Your task to perform on an android device: toggle javascript in the chrome app Image 0: 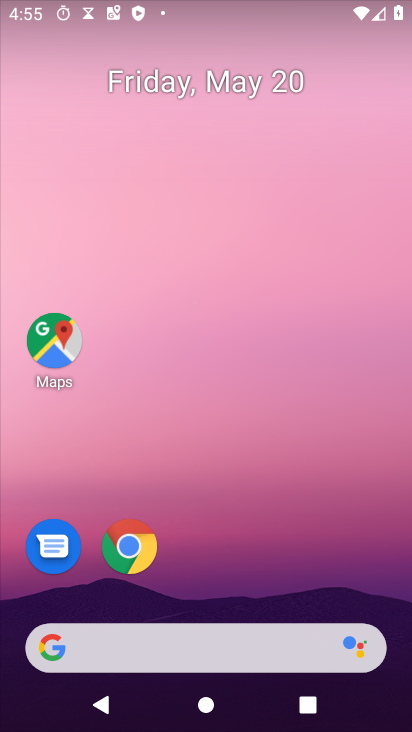
Step 0: click (130, 544)
Your task to perform on an android device: toggle javascript in the chrome app Image 1: 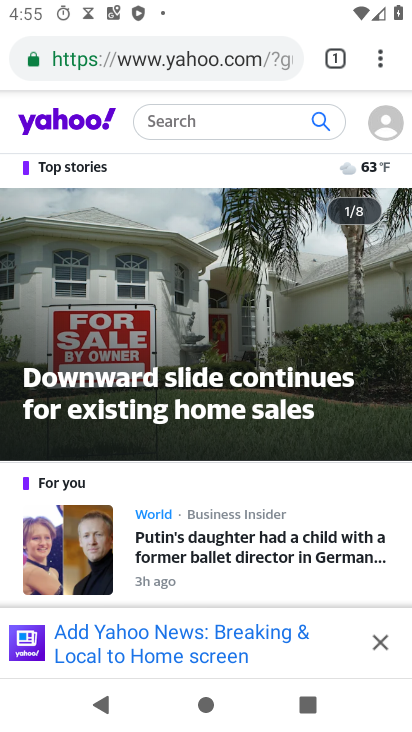
Step 1: click (380, 61)
Your task to perform on an android device: toggle javascript in the chrome app Image 2: 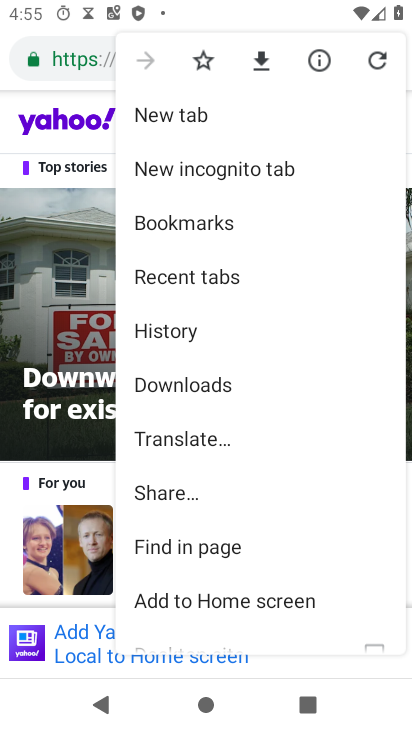
Step 2: drag from (224, 474) to (237, 392)
Your task to perform on an android device: toggle javascript in the chrome app Image 3: 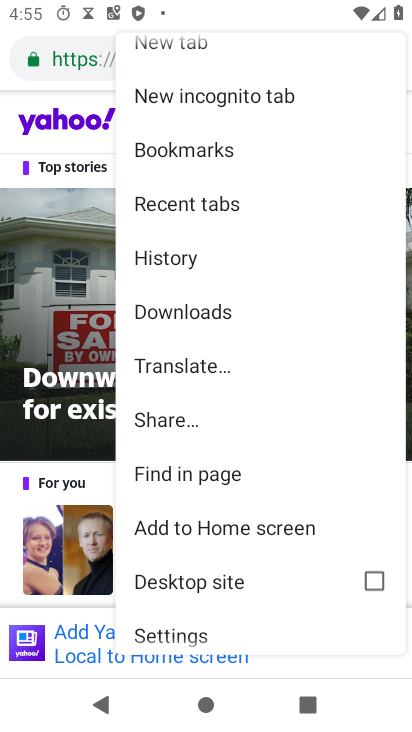
Step 3: drag from (191, 549) to (234, 464)
Your task to perform on an android device: toggle javascript in the chrome app Image 4: 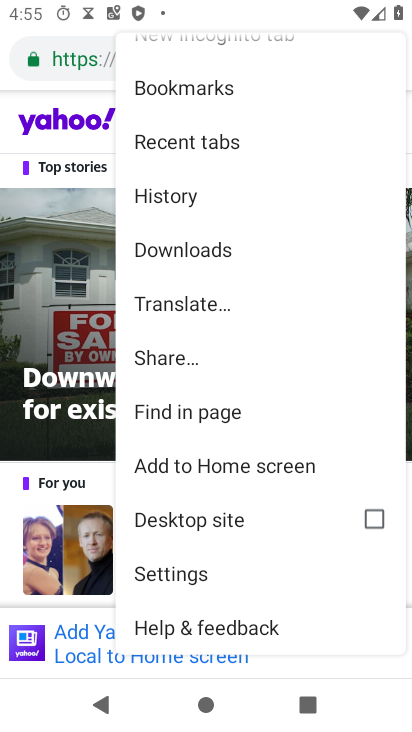
Step 4: click (163, 573)
Your task to perform on an android device: toggle javascript in the chrome app Image 5: 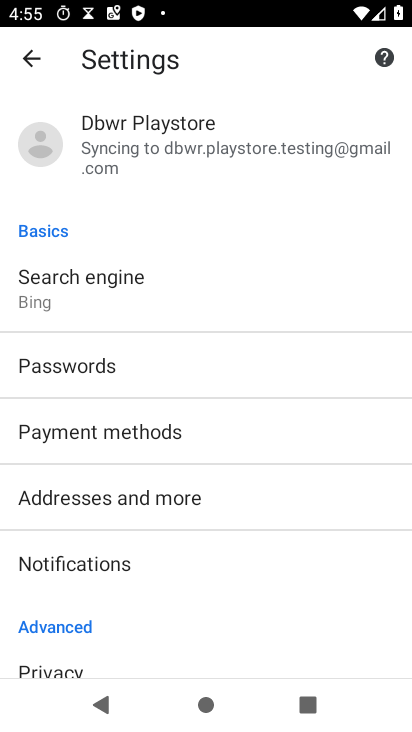
Step 5: drag from (119, 597) to (197, 463)
Your task to perform on an android device: toggle javascript in the chrome app Image 6: 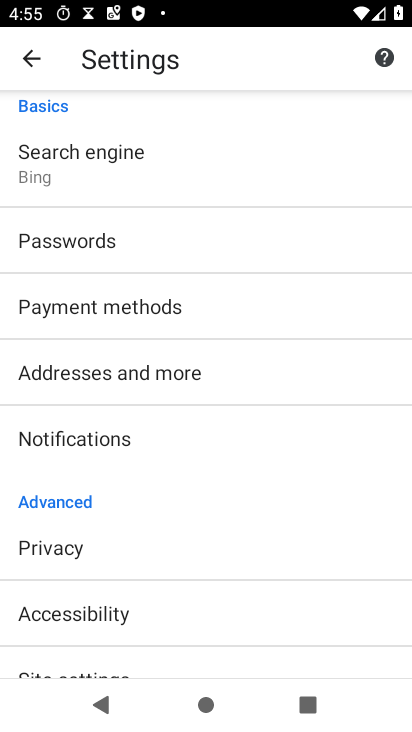
Step 6: drag from (121, 590) to (206, 470)
Your task to perform on an android device: toggle javascript in the chrome app Image 7: 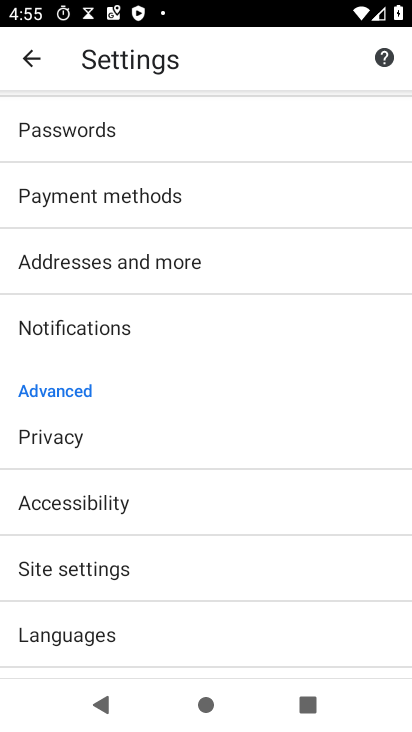
Step 7: click (102, 567)
Your task to perform on an android device: toggle javascript in the chrome app Image 8: 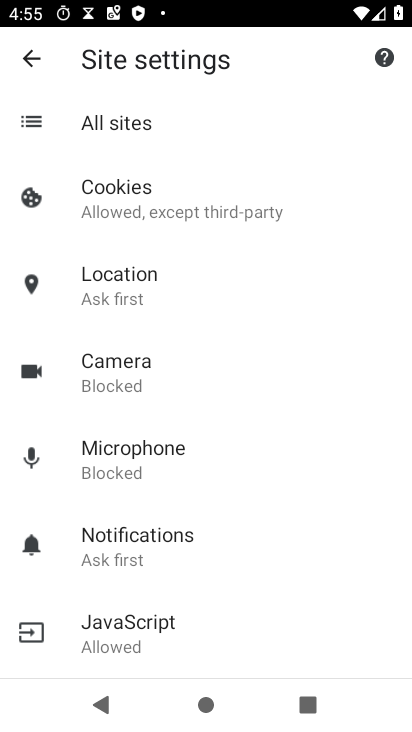
Step 8: drag from (199, 550) to (231, 477)
Your task to perform on an android device: toggle javascript in the chrome app Image 9: 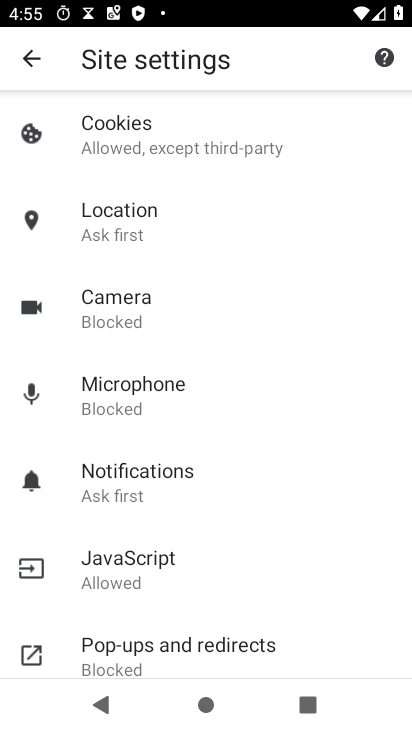
Step 9: click (136, 550)
Your task to perform on an android device: toggle javascript in the chrome app Image 10: 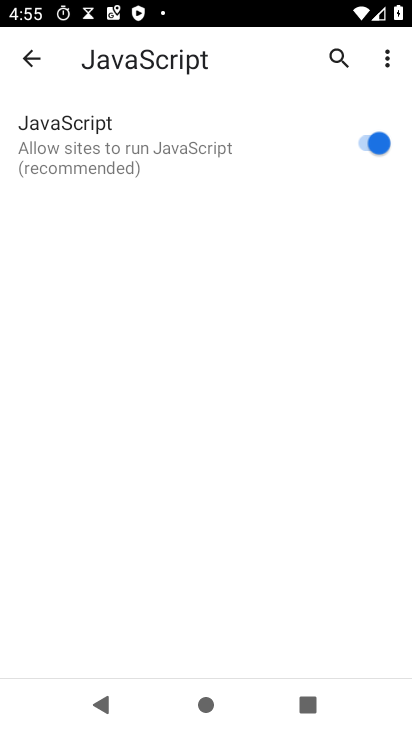
Step 10: click (377, 143)
Your task to perform on an android device: toggle javascript in the chrome app Image 11: 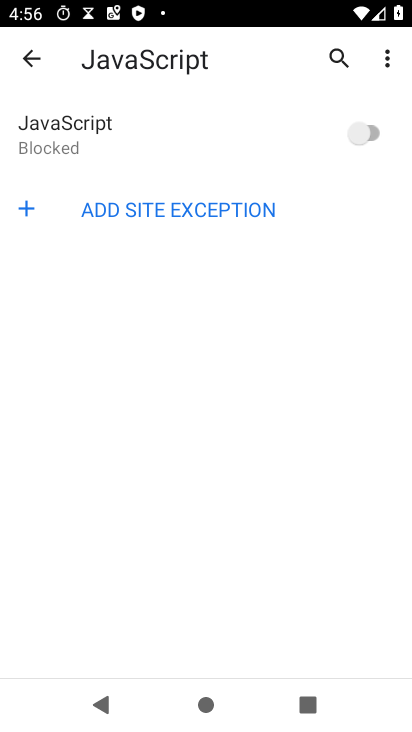
Step 11: task complete